Your task to perform on an android device: see creations saved in the google photos Image 0: 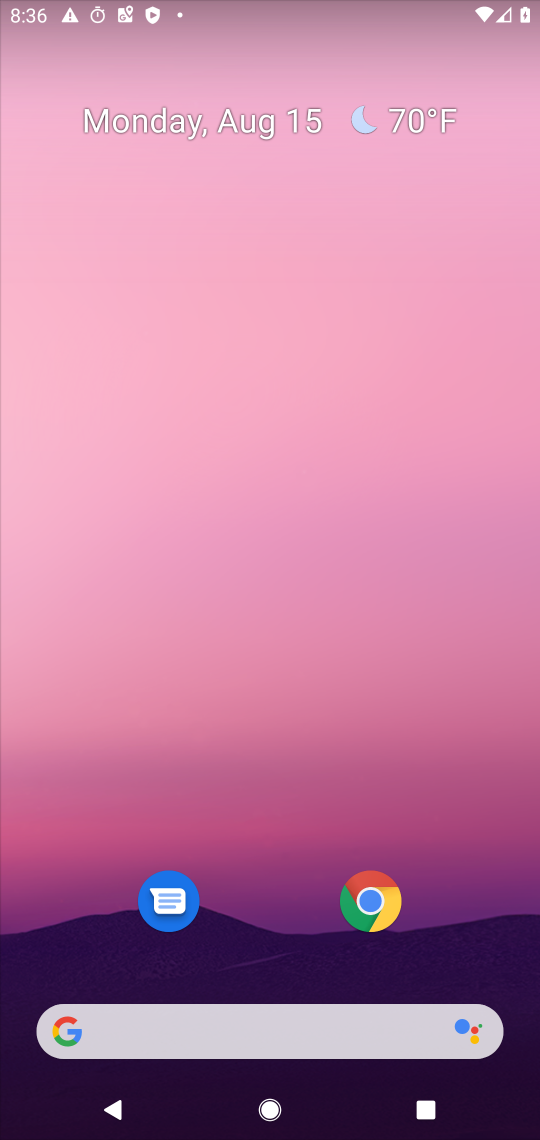
Step 0: drag from (262, 920) to (449, 15)
Your task to perform on an android device: see creations saved in the google photos Image 1: 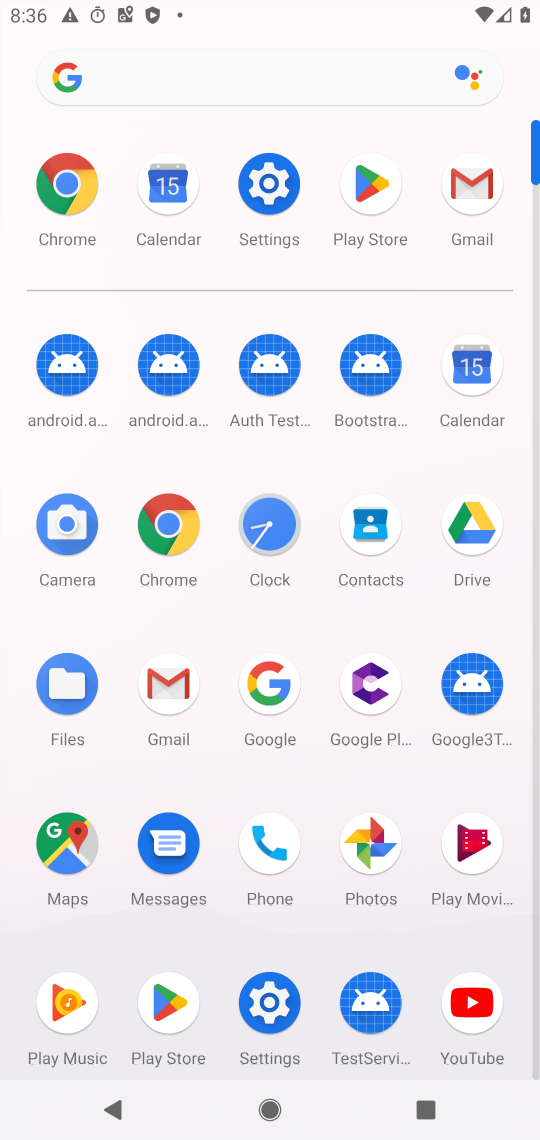
Step 1: click (376, 868)
Your task to perform on an android device: see creations saved in the google photos Image 2: 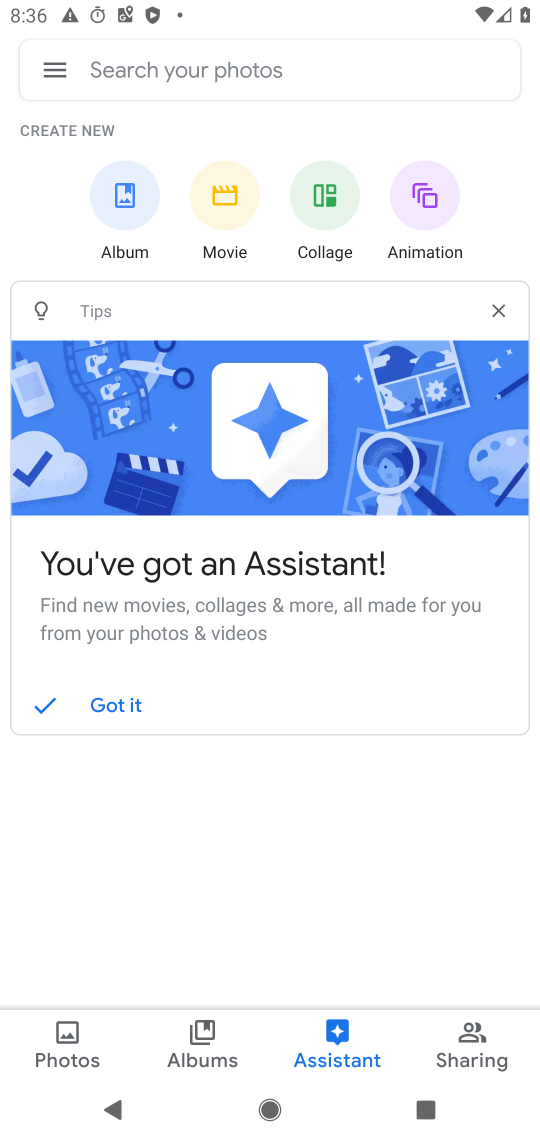
Step 2: click (259, 75)
Your task to perform on an android device: see creations saved in the google photos Image 3: 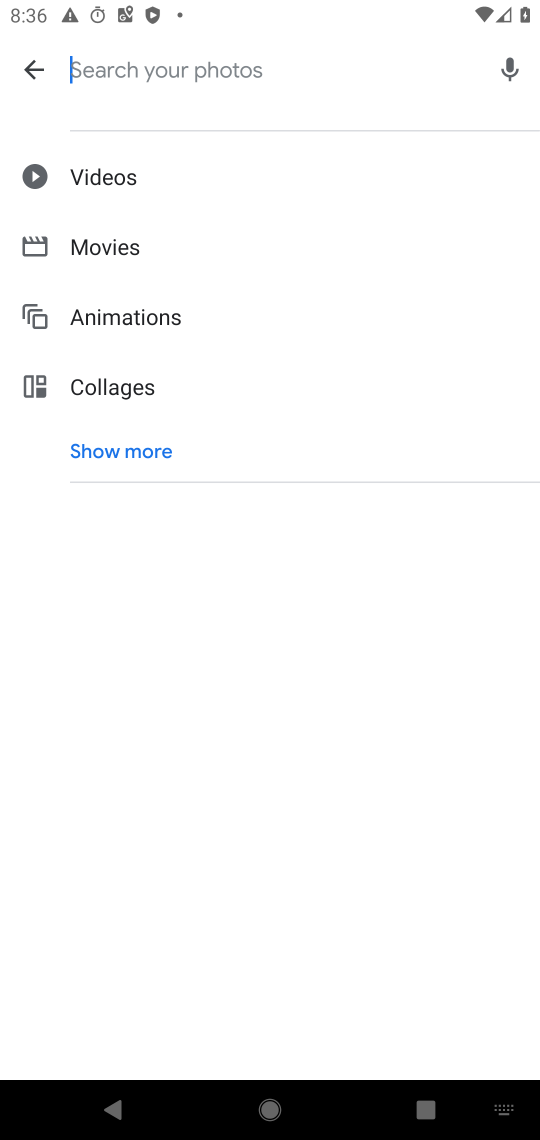
Step 3: type "creations"
Your task to perform on an android device: see creations saved in the google photos Image 4: 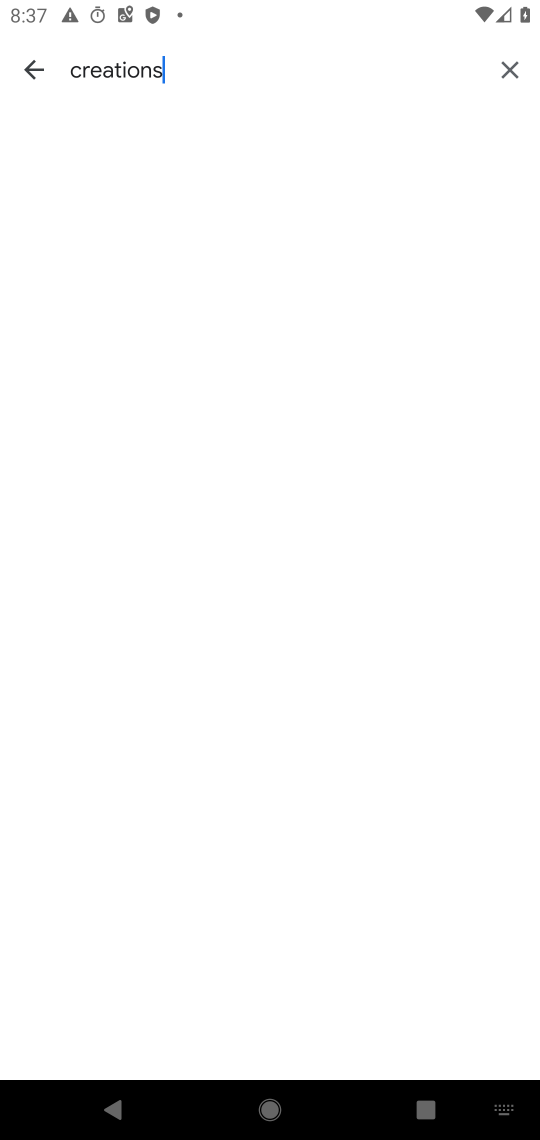
Step 4: task complete